Your task to perform on an android device: Go to display settings Image 0: 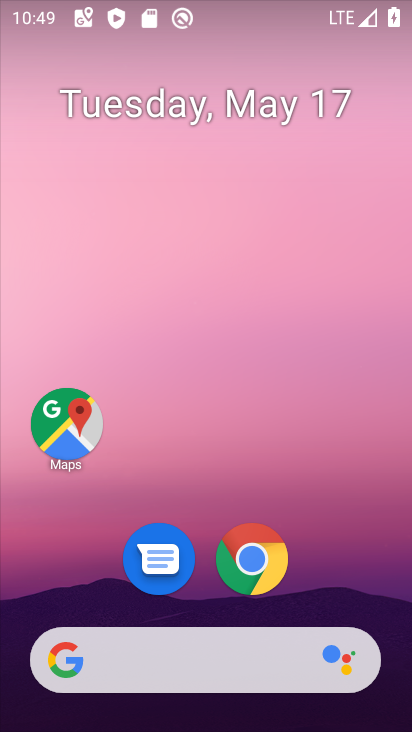
Step 0: drag from (285, 717) to (216, 34)
Your task to perform on an android device: Go to display settings Image 1: 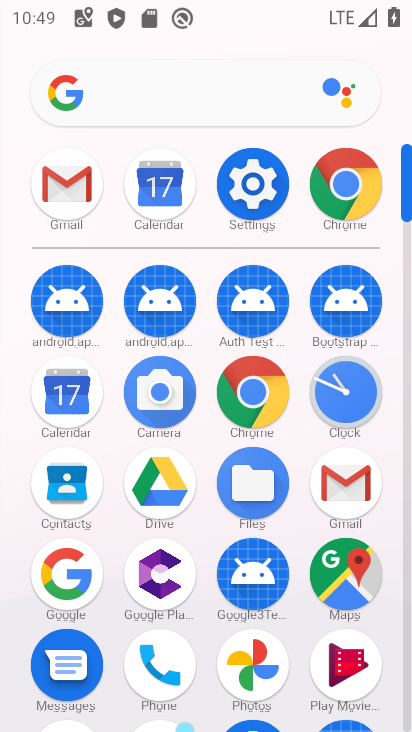
Step 1: click (255, 194)
Your task to perform on an android device: Go to display settings Image 2: 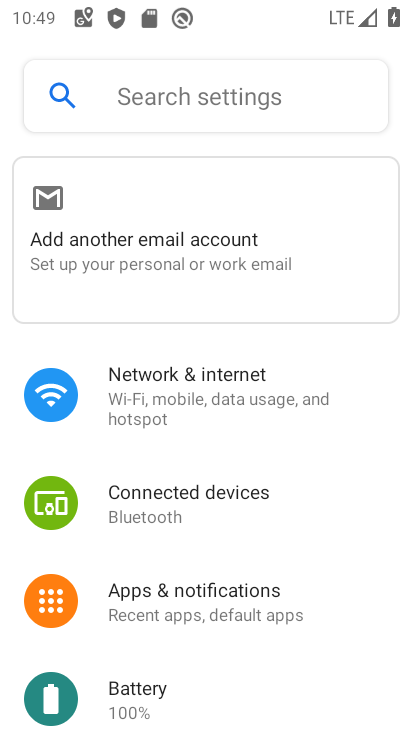
Step 2: drag from (276, 705) to (264, 143)
Your task to perform on an android device: Go to display settings Image 3: 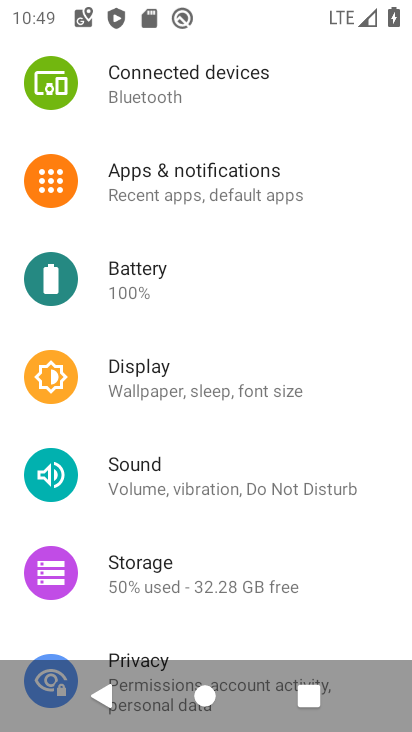
Step 3: click (210, 377)
Your task to perform on an android device: Go to display settings Image 4: 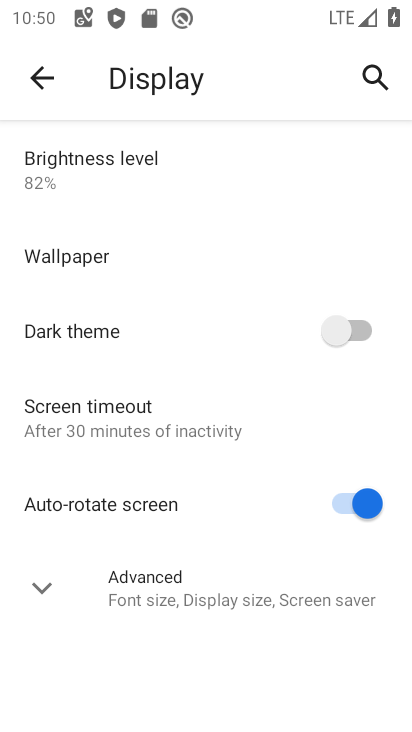
Step 4: task complete